Your task to perform on an android device: change the clock style Image 0: 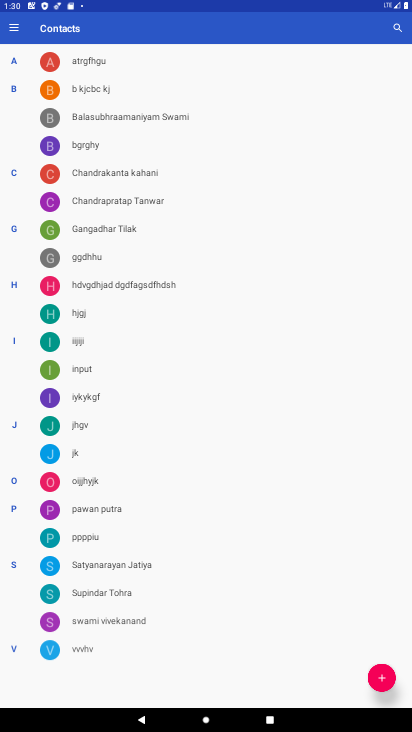
Step 0: drag from (213, 475) to (224, 50)
Your task to perform on an android device: change the clock style Image 1: 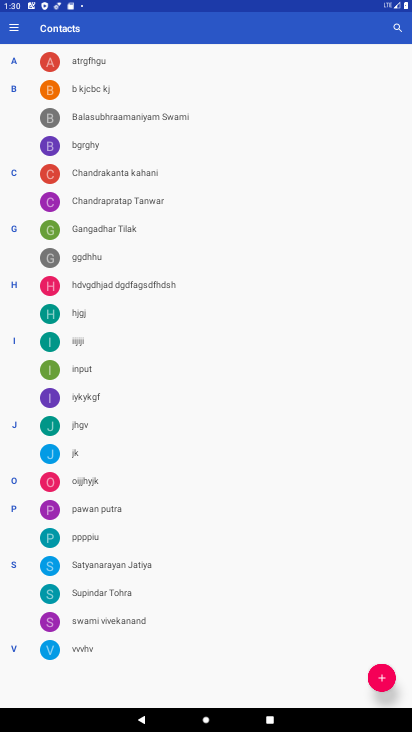
Step 1: press home button
Your task to perform on an android device: change the clock style Image 2: 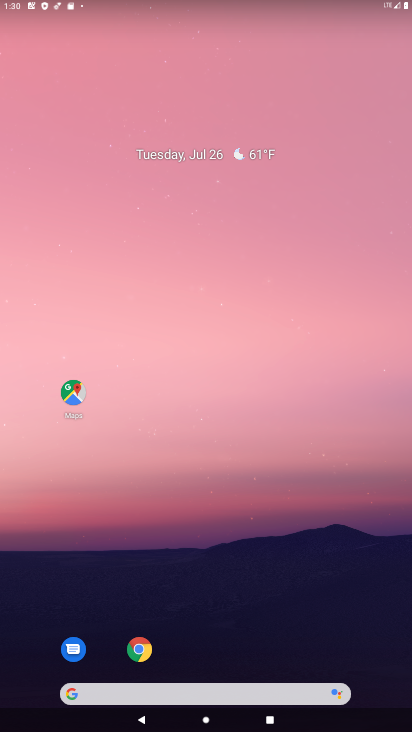
Step 2: drag from (175, 632) to (204, 93)
Your task to perform on an android device: change the clock style Image 3: 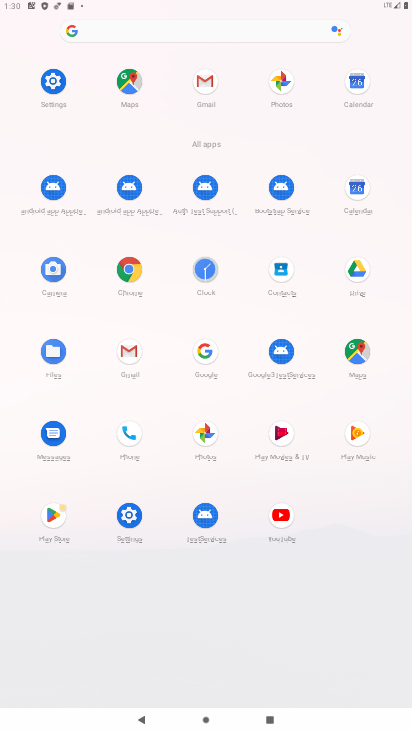
Step 3: click (120, 365)
Your task to perform on an android device: change the clock style Image 4: 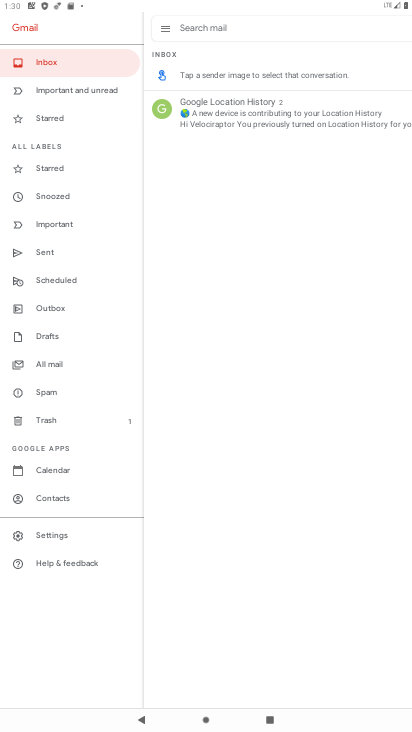
Step 4: click (223, 128)
Your task to perform on an android device: change the clock style Image 5: 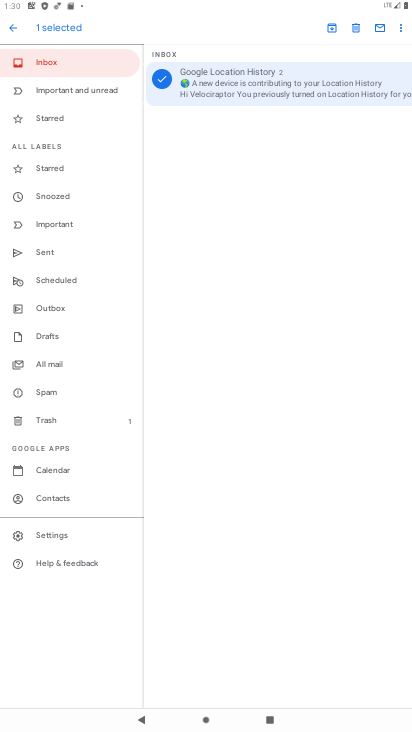
Step 5: click (350, 24)
Your task to perform on an android device: change the clock style Image 6: 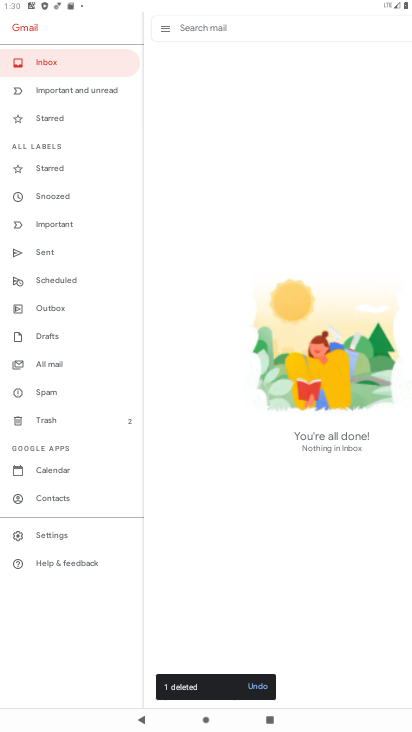
Step 6: task complete